Your task to perform on an android device: refresh tabs in the chrome app Image 0: 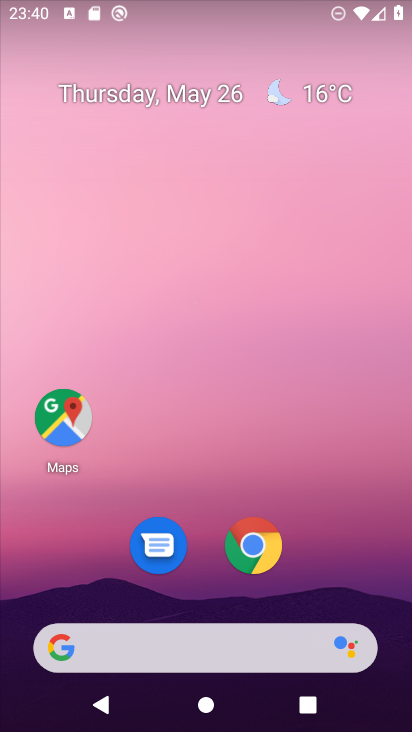
Step 0: press home button
Your task to perform on an android device: refresh tabs in the chrome app Image 1: 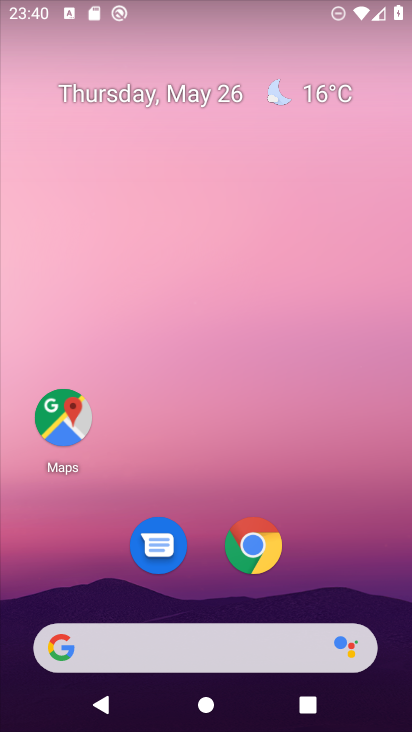
Step 1: click (260, 545)
Your task to perform on an android device: refresh tabs in the chrome app Image 2: 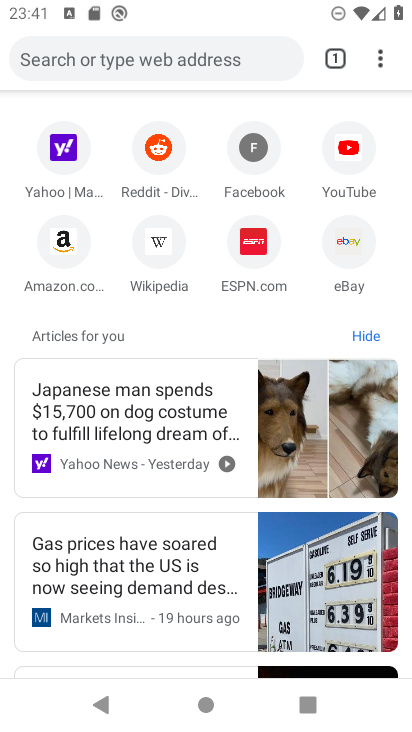
Step 2: click (381, 63)
Your task to perform on an android device: refresh tabs in the chrome app Image 3: 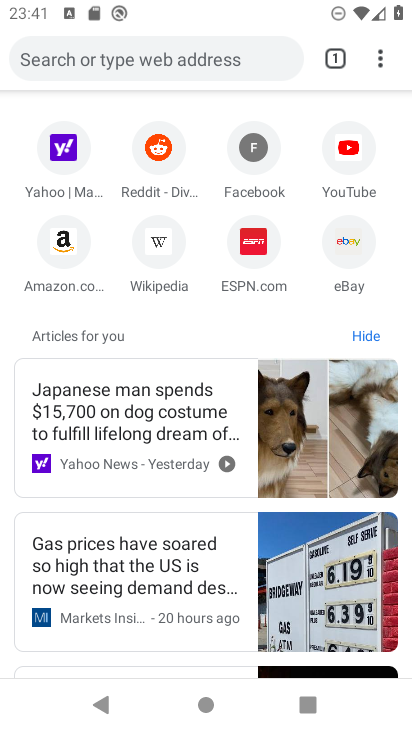
Step 3: task complete